Your task to perform on an android device: Go to ESPN.com Image 0: 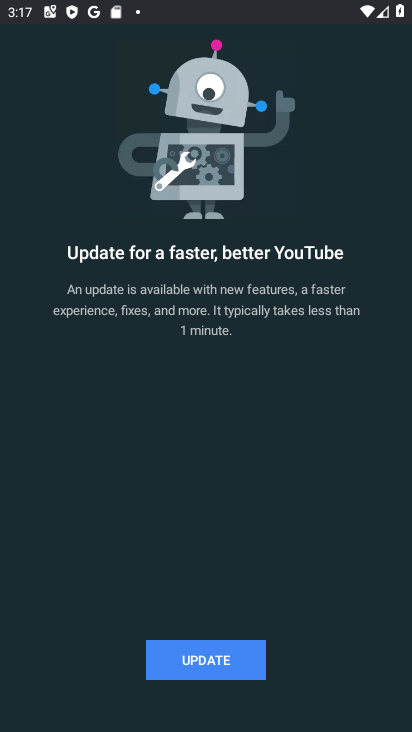
Step 0: press home button
Your task to perform on an android device: Go to ESPN.com Image 1: 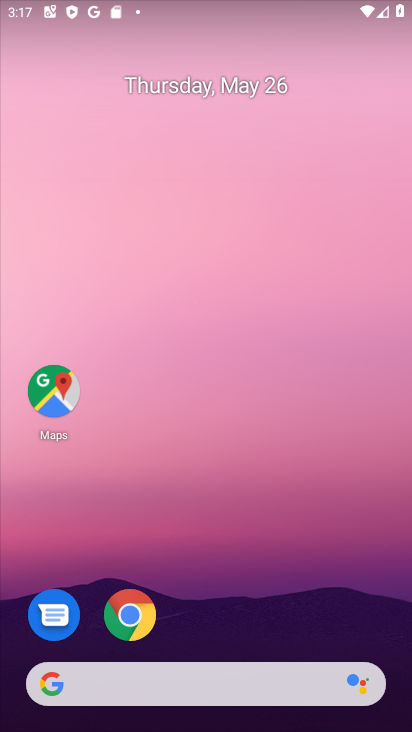
Step 1: click (116, 627)
Your task to perform on an android device: Go to ESPN.com Image 2: 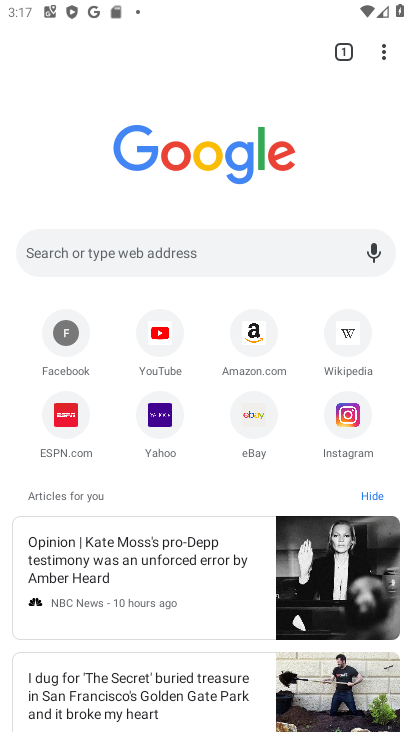
Step 2: click (70, 432)
Your task to perform on an android device: Go to ESPN.com Image 3: 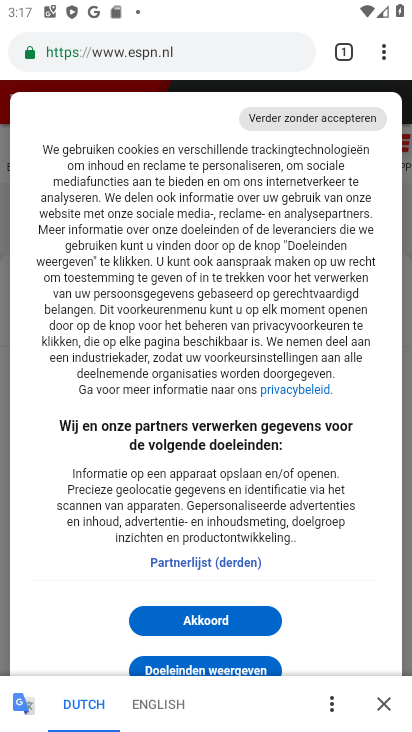
Step 3: task complete